Your task to perform on an android device: Open Chrome and go to settings Image 0: 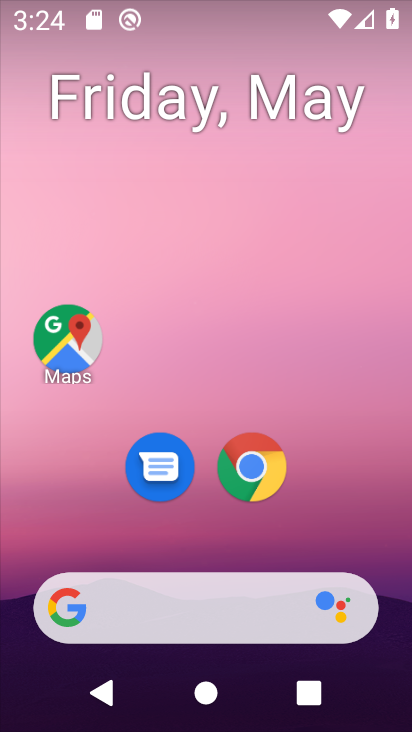
Step 0: click (255, 470)
Your task to perform on an android device: Open Chrome and go to settings Image 1: 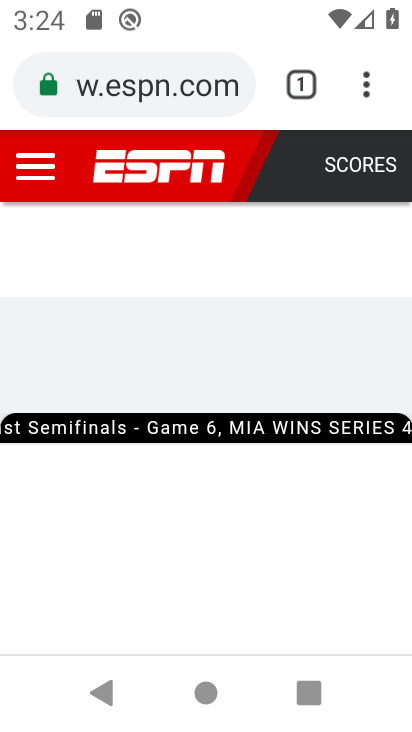
Step 1: click (372, 85)
Your task to perform on an android device: Open Chrome and go to settings Image 2: 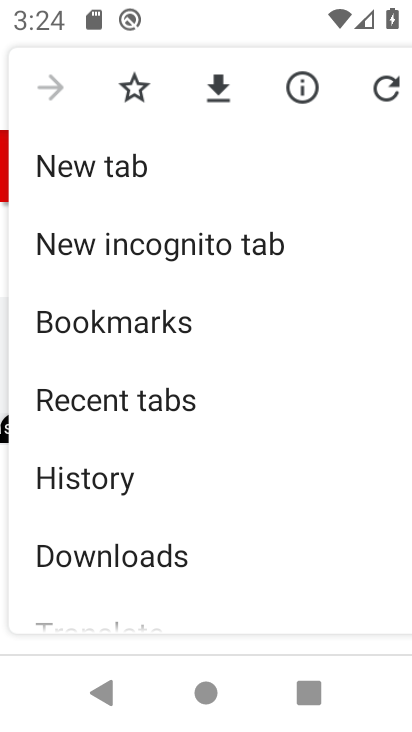
Step 2: drag from (244, 554) to (247, 113)
Your task to perform on an android device: Open Chrome and go to settings Image 3: 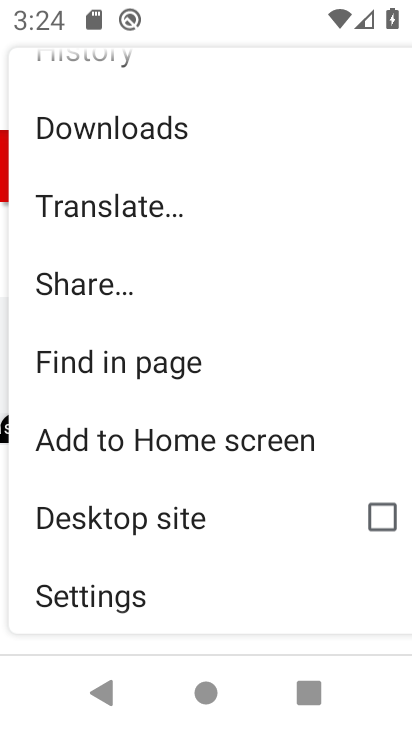
Step 3: drag from (183, 531) to (190, 287)
Your task to perform on an android device: Open Chrome and go to settings Image 4: 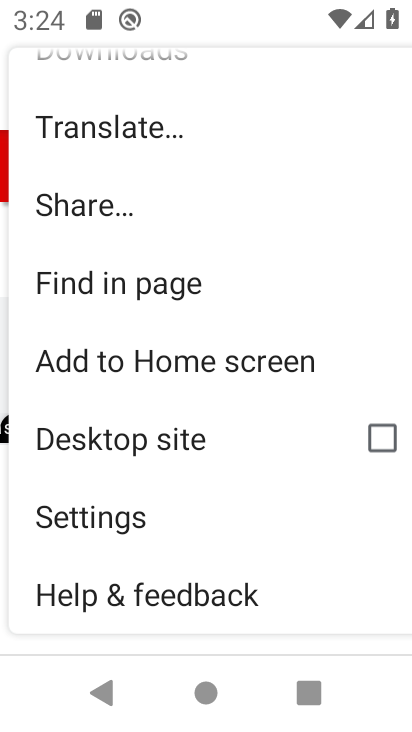
Step 4: click (135, 490)
Your task to perform on an android device: Open Chrome and go to settings Image 5: 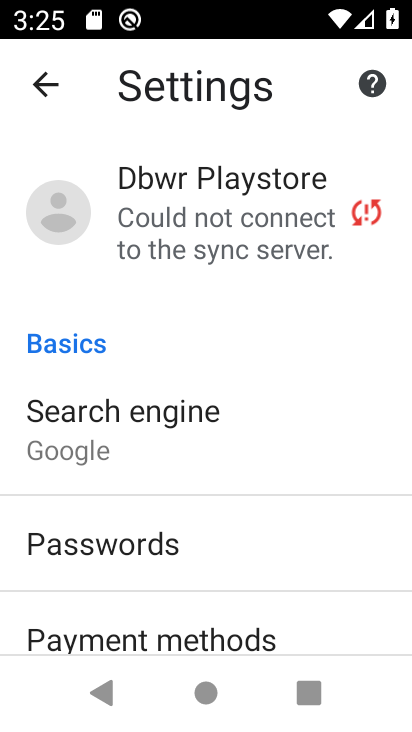
Step 5: task complete